Your task to perform on an android device: Go to eBay Image 0: 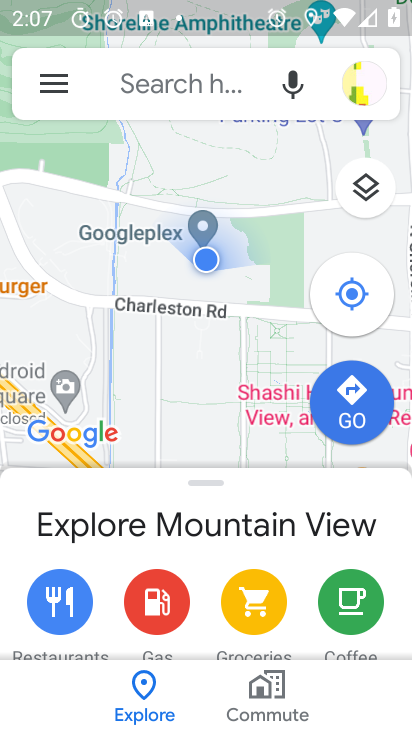
Step 0: press back button
Your task to perform on an android device: Go to eBay Image 1: 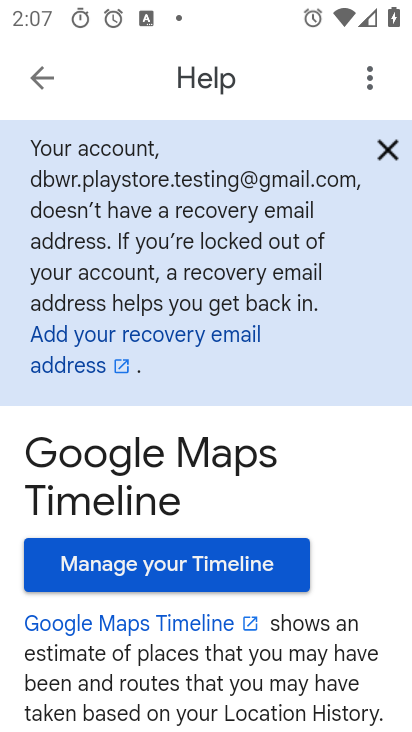
Step 1: press home button
Your task to perform on an android device: Go to eBay Image 2: 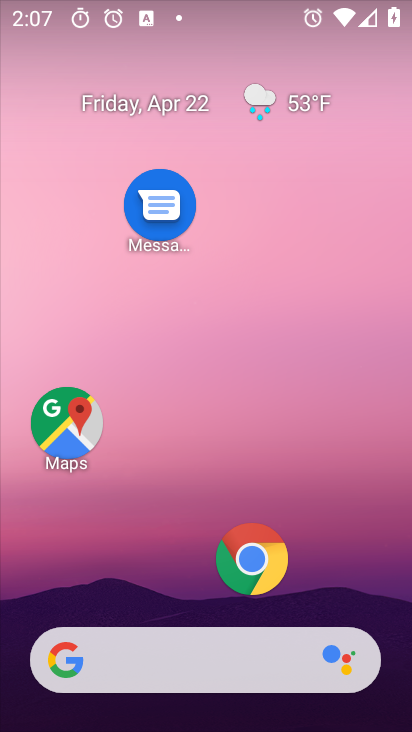
Step 2: drag from (212, 624) to (341, 269)
Your task to perform on an android device: Go to eBay Image 3: 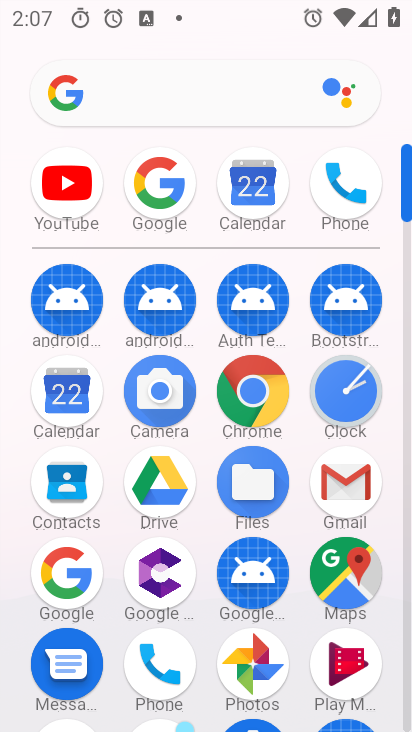
Step 3: click (263, 385)
Your task to perform on an android device: Go to eBay Image 4: 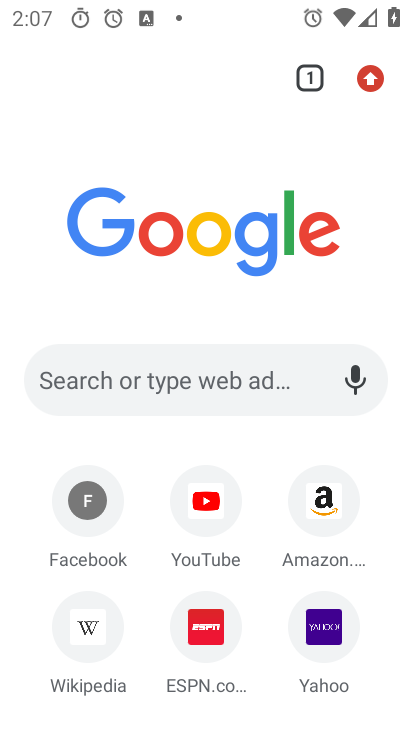
Step 4: drag from (252, 621) to (309, 399)
Your task to perform on an android device: Go to eBay Image 5: 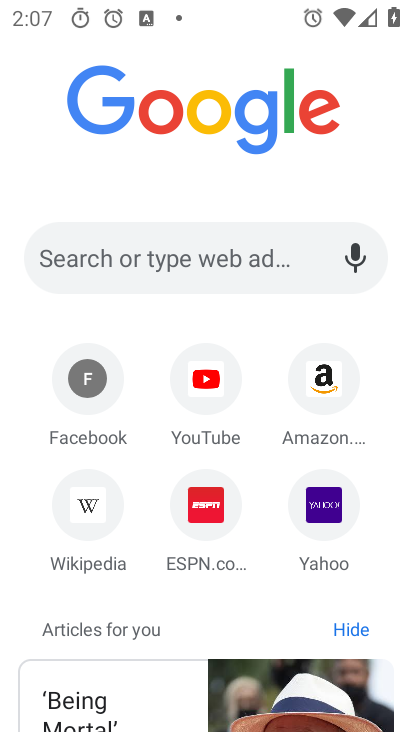
Step 5: click (146, 259)
Your task to perform on an android device: Go to eBay Image 6: 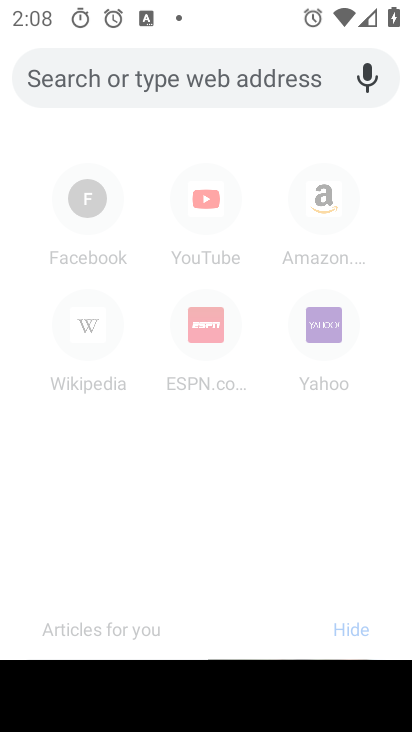
Step 6: type "ebay"
Your task to perform on an android device: Go to eBay Image 7: 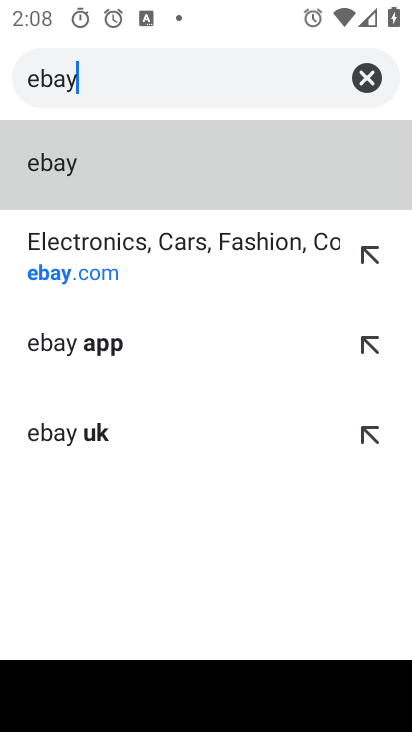
Step 7: click (68, 275)
Your task to perform on an android device: Go to eBay Image 8: 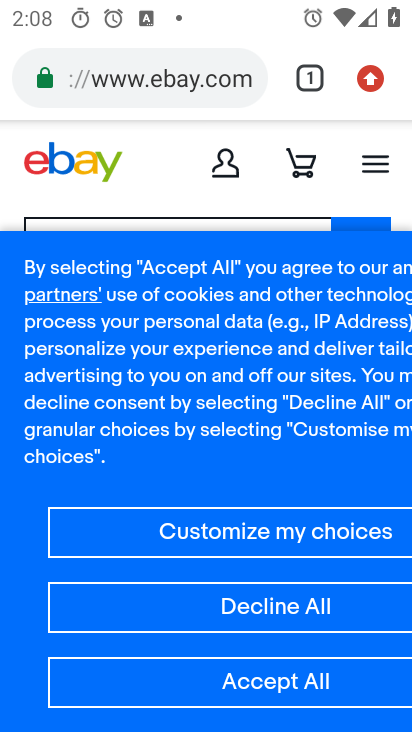
Step 8: task complete